Your task to perform on an android device: Open internet settings Image 0: 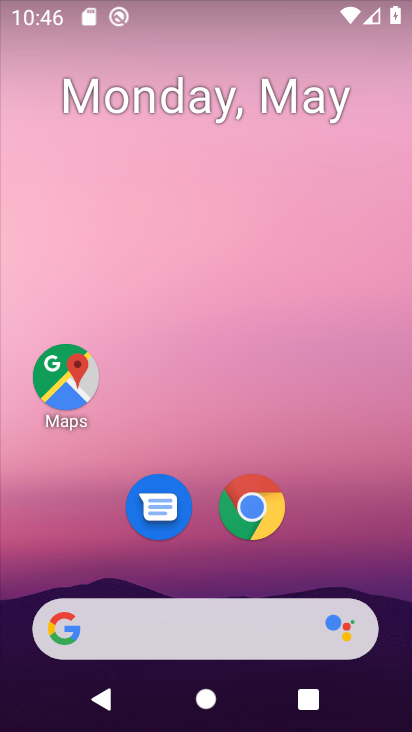
Step 0: drag from (325, 541) to (322, 57)
Your task to perform on an android device: Open internet settings Image 1: 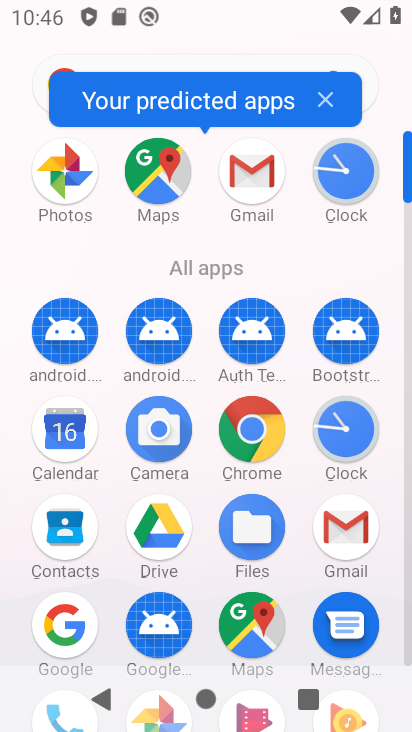
Step 1: drag from (200, 659) to (220, 313)
Your task to perform on an android device: Open internet settings Image 2: 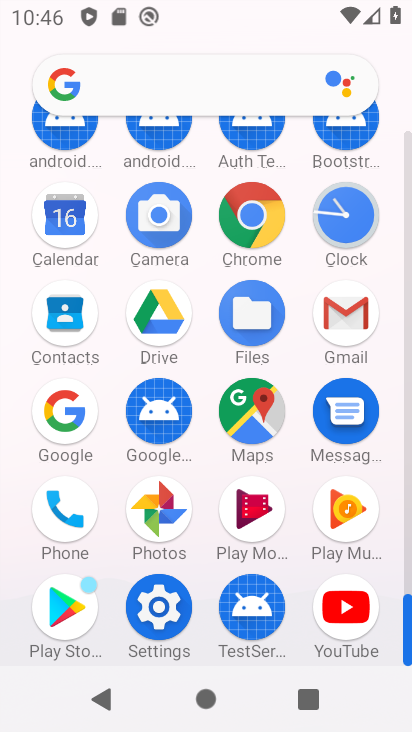
Step 2: click (154, 625)
Your task to perform on an android device: Open internet settings Image 3: 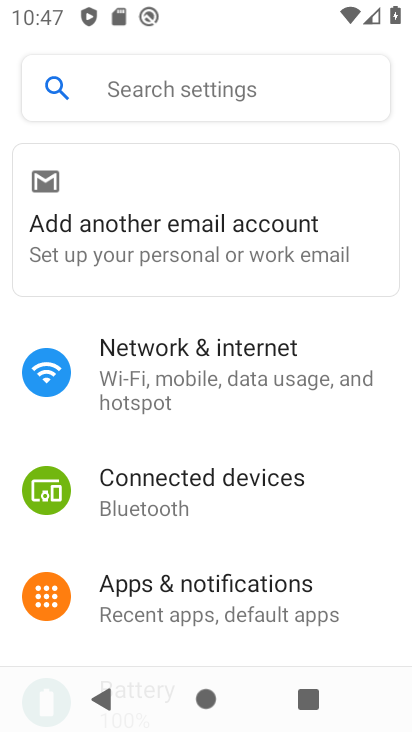
Step 3: click (202, 395)
Your task to perform on an android device: Open internet settings Image 4: 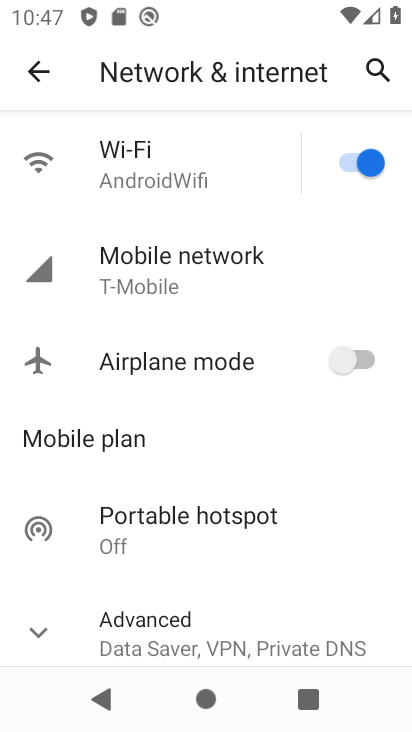
Step 4: drag from (189, 562) to (180, 186)
Your task to perform on an android device: Open internet settings Image 5: 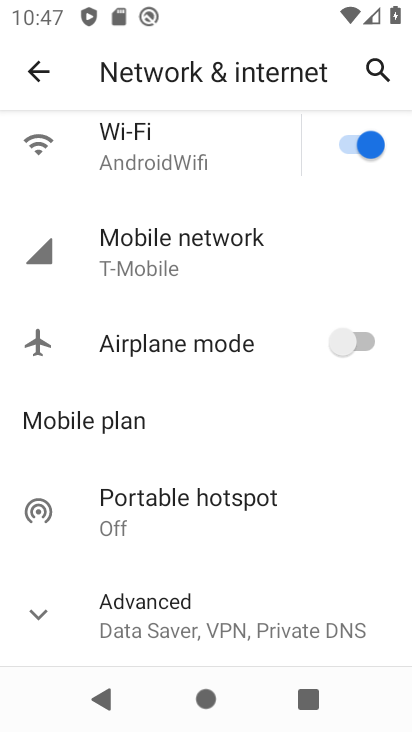
Step 5: click (40, 616)
Your task to perform on an android device: Open internet settings Image 6: 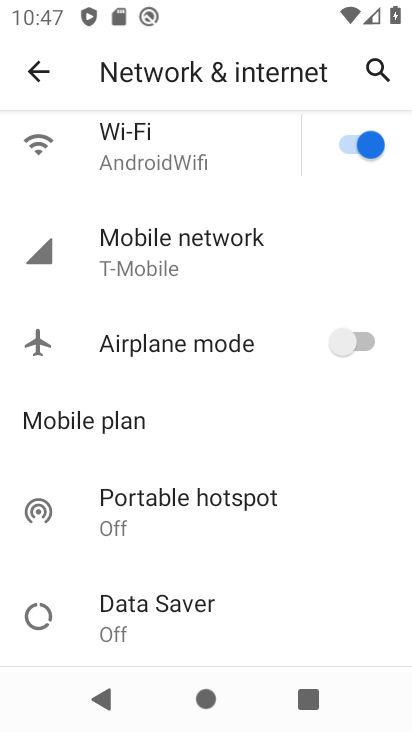
Step 6: task complete